Your task to perform on an android device: Do I have any events tomorrow? Image 0: 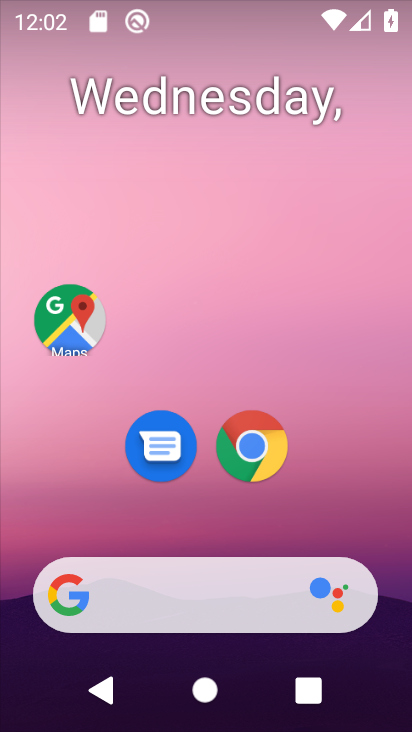
Step 0: drag from (342, 555) to (379, 5)
Your task to perform on an android device: Do I have any events tomorrow? Image 1: 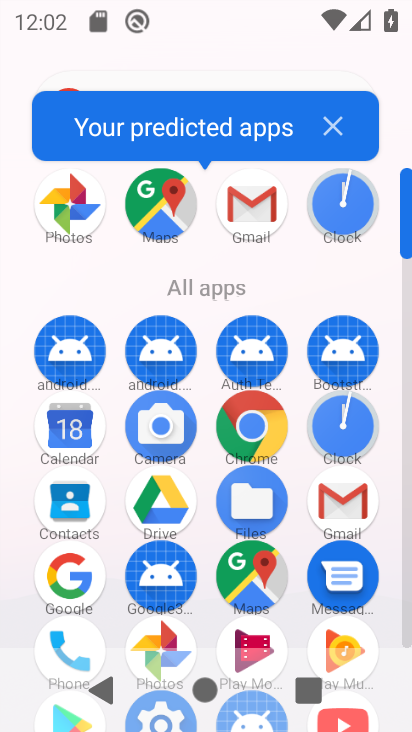
Step 1: click (75, 442)
Your task to perform on an android device: Do I have any events tomorrow? Image 2: 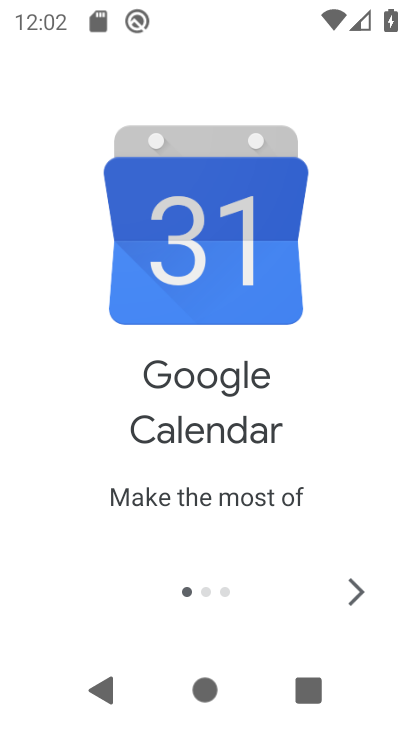
Step 2: click (357, 605)
Your task to perform on an android device: Do I have any events tomorrow? Image 3: 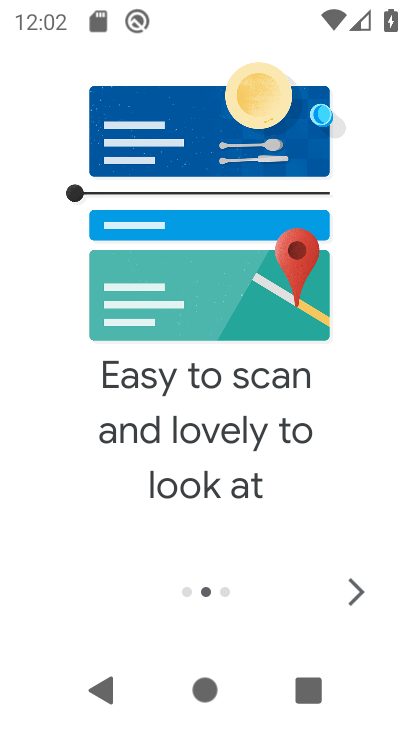
Step 3: click (357, 605)
Your task to perform on an android device: Do I have any events tomorrow? Image 4: 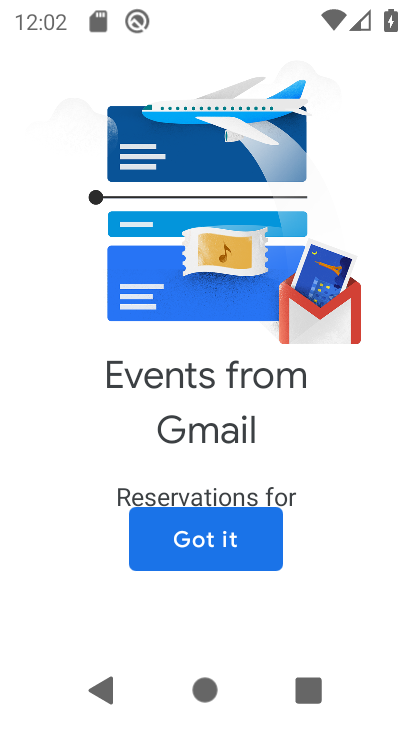
Step 4: click (227, 542)
Your task to perform on an android device: Do I have any events tomorrow? Image 5: 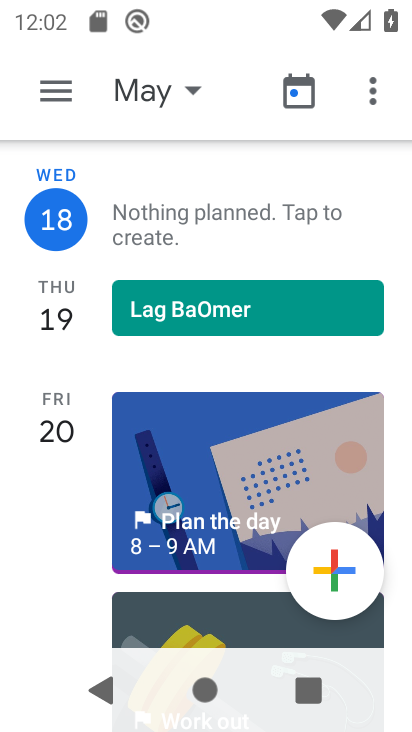
Step 5: click (146, 219)
Your task to perform on an android device: Do I have any events tomorrow? Image 6: 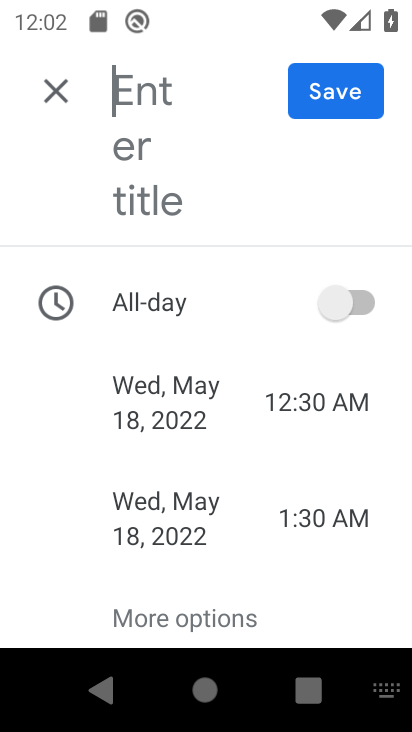
Step 6: task complete